Your task to perform on an android device: Open the web browser Image 0: 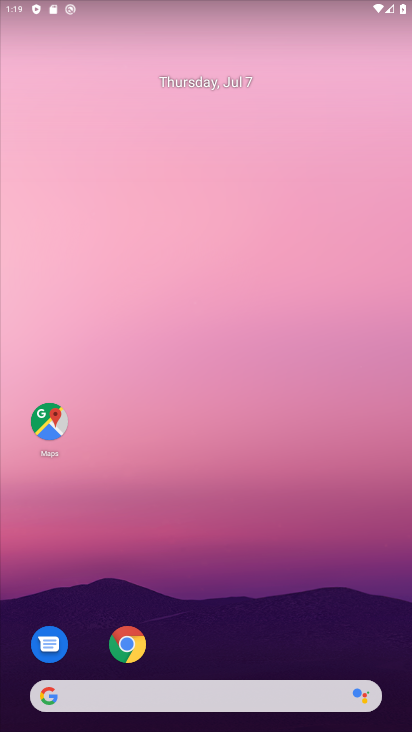
Step 0: click (133, 655)
Your task to perform on an android device: Open the web browser Image 1: 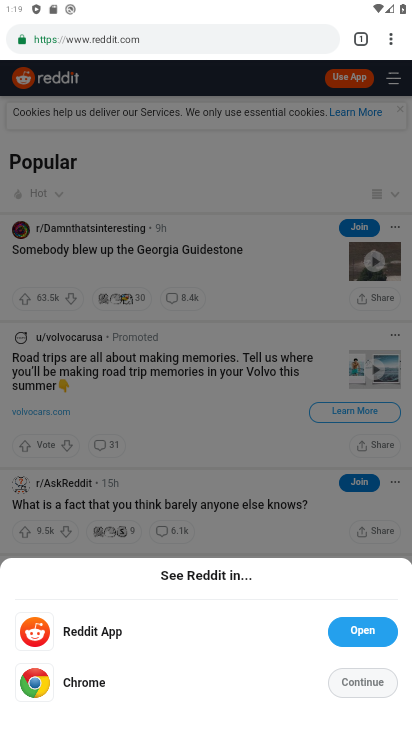
Step 1: task complete